Your task to perform on an android device: What's US dollar exchange rate against the British Pound? Image 0: 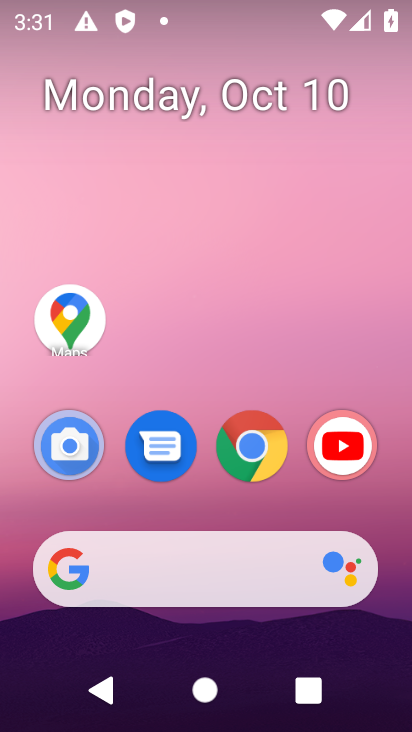
Step 0: click (208, 561)
Your task to perform on an android device: What's US dollar exchange rate against the British Pound? Image 1: 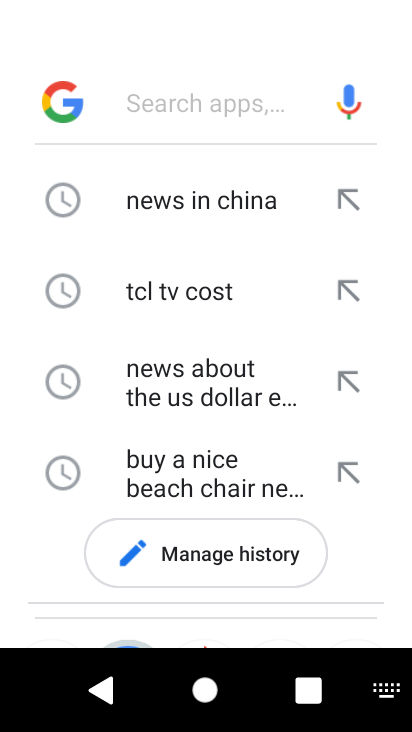
Step 1: type "US dollar exchange rate against the British Pound"
Your task to perform on an android device: What's US dollar exchange rate against the British Pound? Image 2: 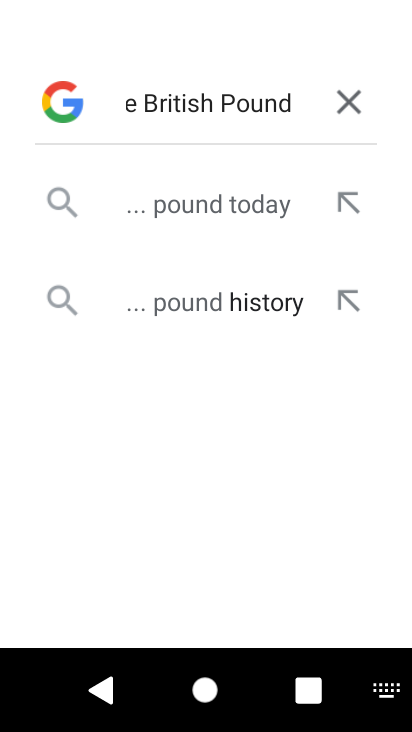
Step 2: type ""
Your task to perform on an android device: What's US dollar exchange rate against the British Pound? Image 3: 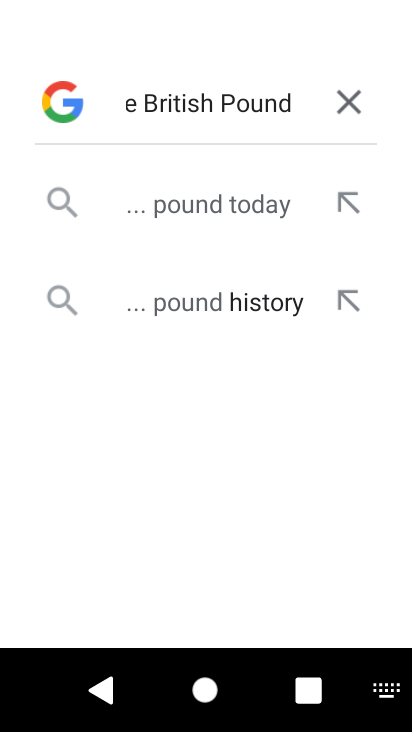
Step 3: click (178, 214)
Your task to perform on an android device: What's US dollar exchange rate against the British Pound? Image 4: 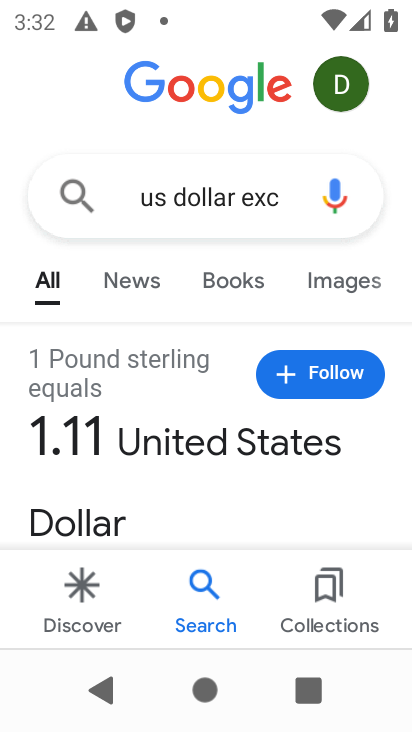
Step 4: task complete